Your task to perform on an android device: uninstall "Viber Messenger" Image 0: 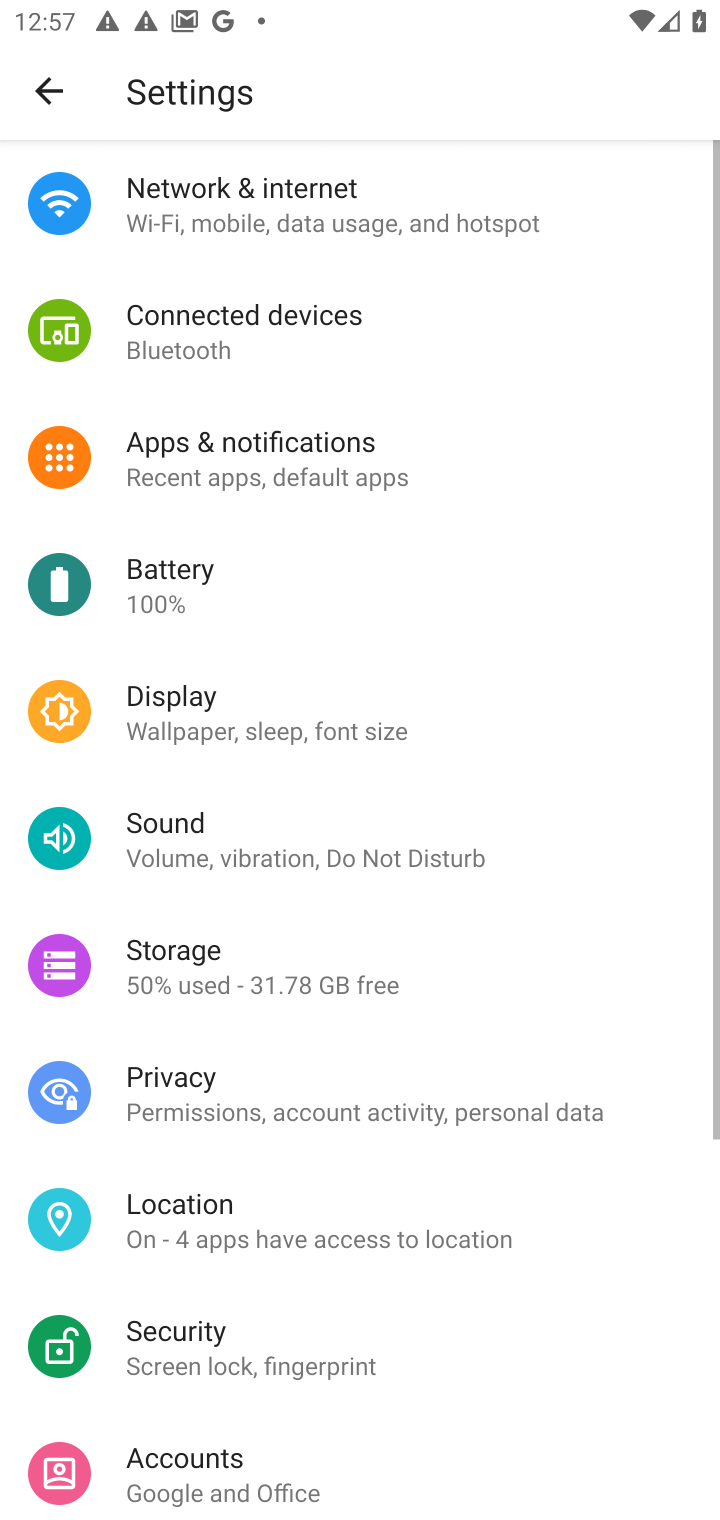
Step 0: press home button
Your task to perform on an android device: uninstall "Viber Messenger" Image 1: 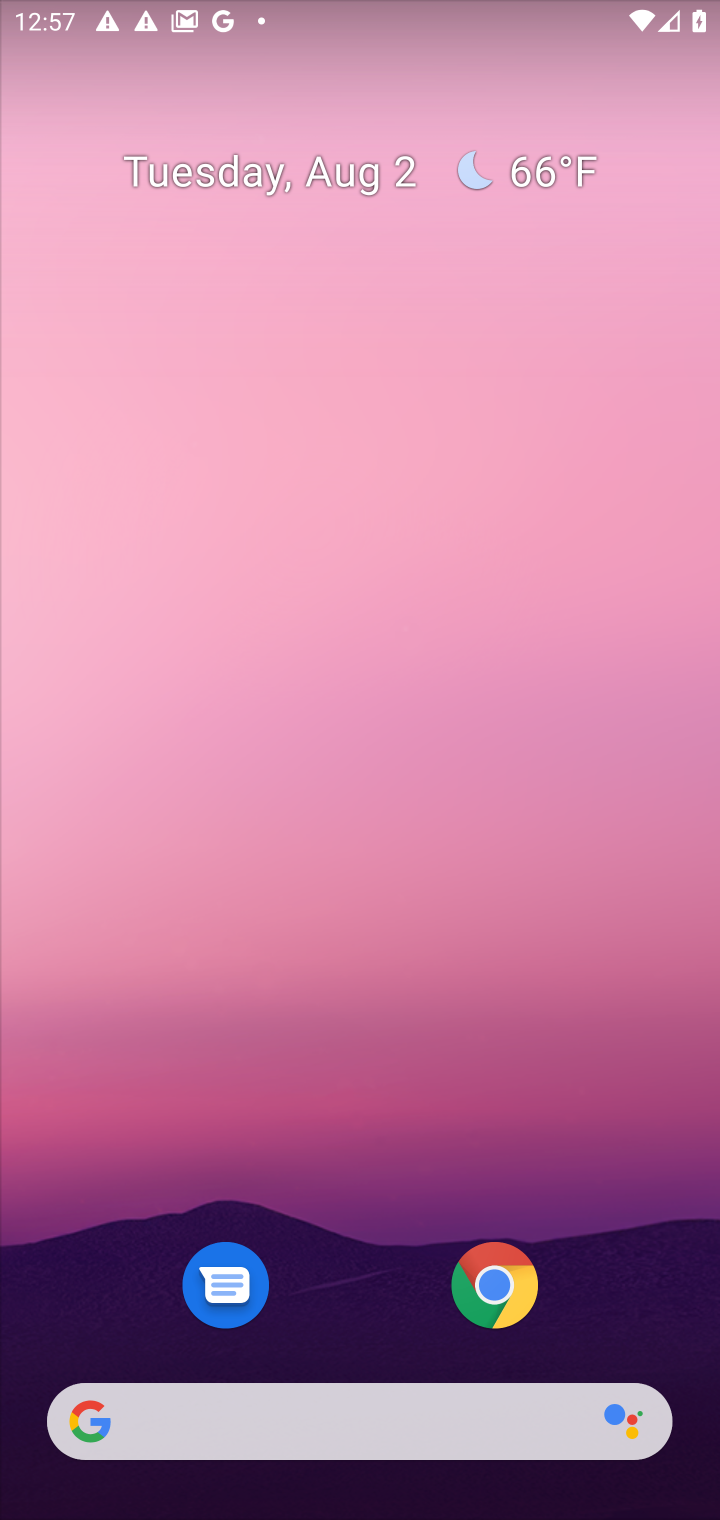
Step 1: drag from (631, 1275) to (634, 195)
Your task to perform on an android device: uninstall "Viber Messenger" Image 2: 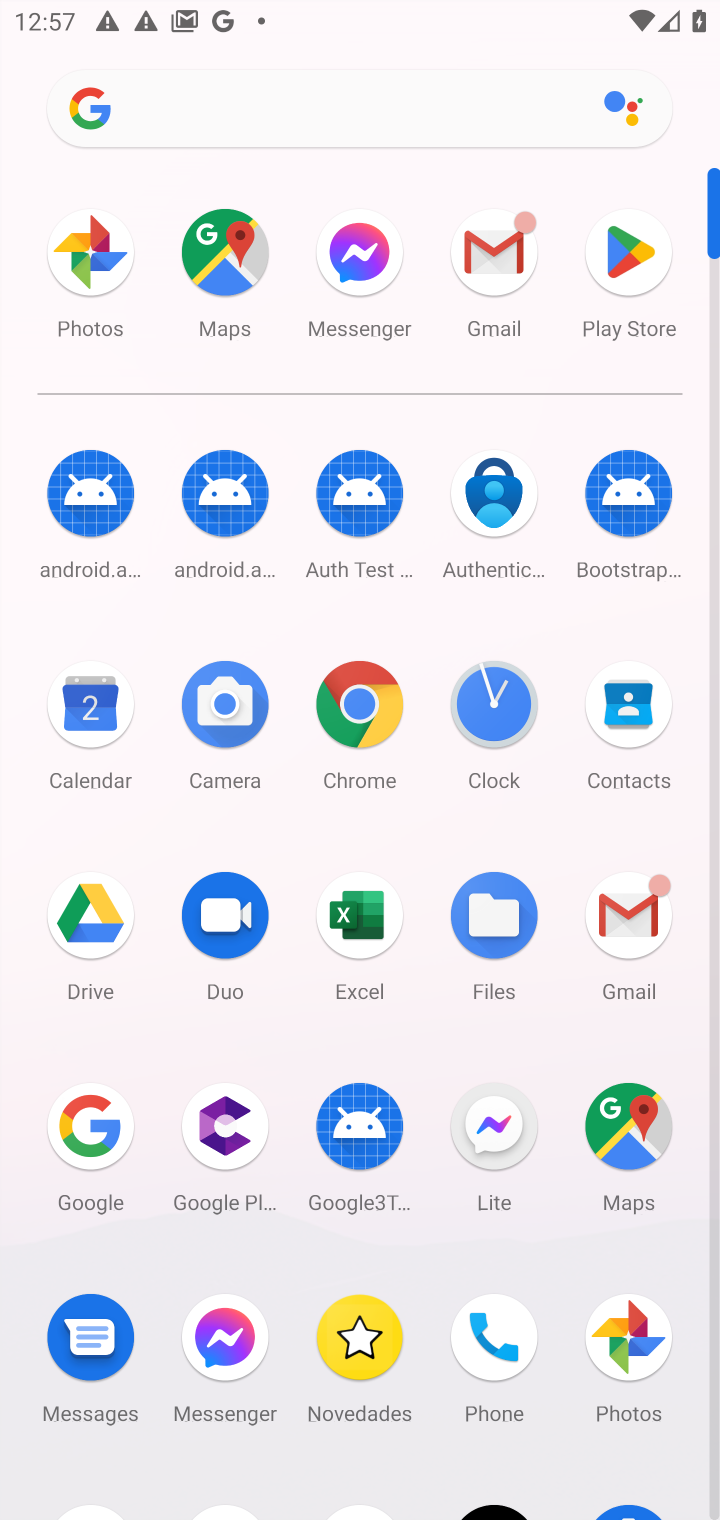
Step 2: drag from (435, 1249) to (483, 398)
Your task to perform on an android device: uninstall "Viber Messenger" Image 3: 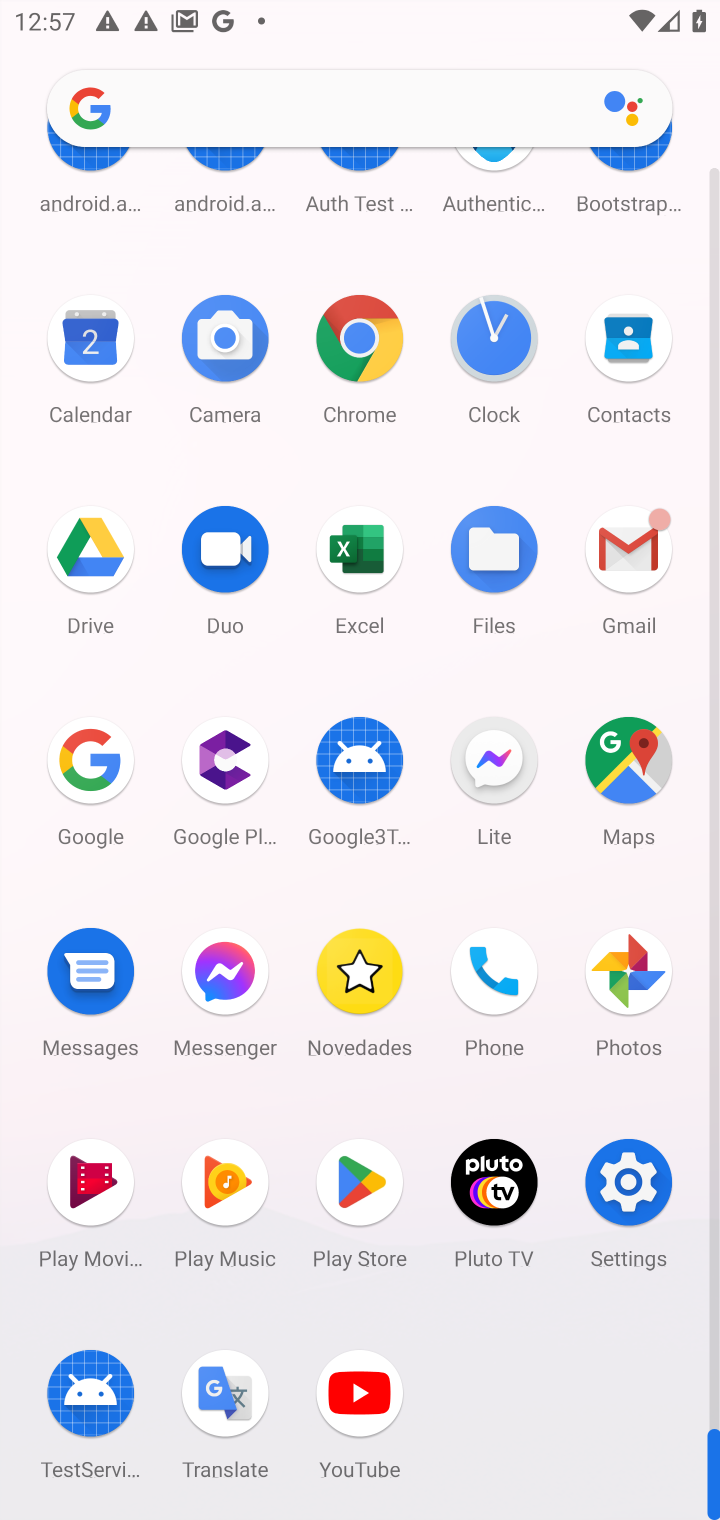
Step 3: click (366, 1188)
Your task to perform on an android device: uninstall "Viber Messenger" Image 4: 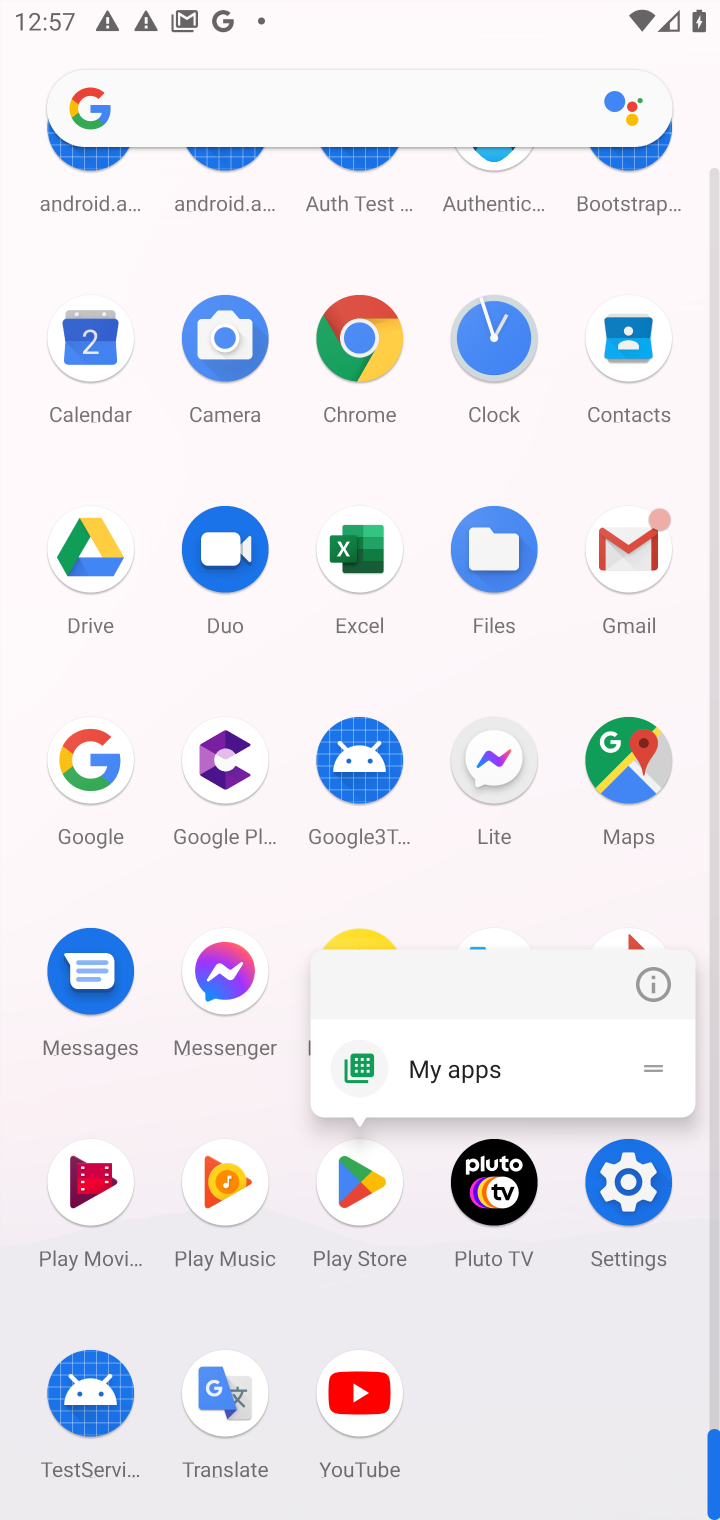
Step 4: click (365, 1193)
Your task to perform on an android device: uninstall "Viber Messenger" Image 5: 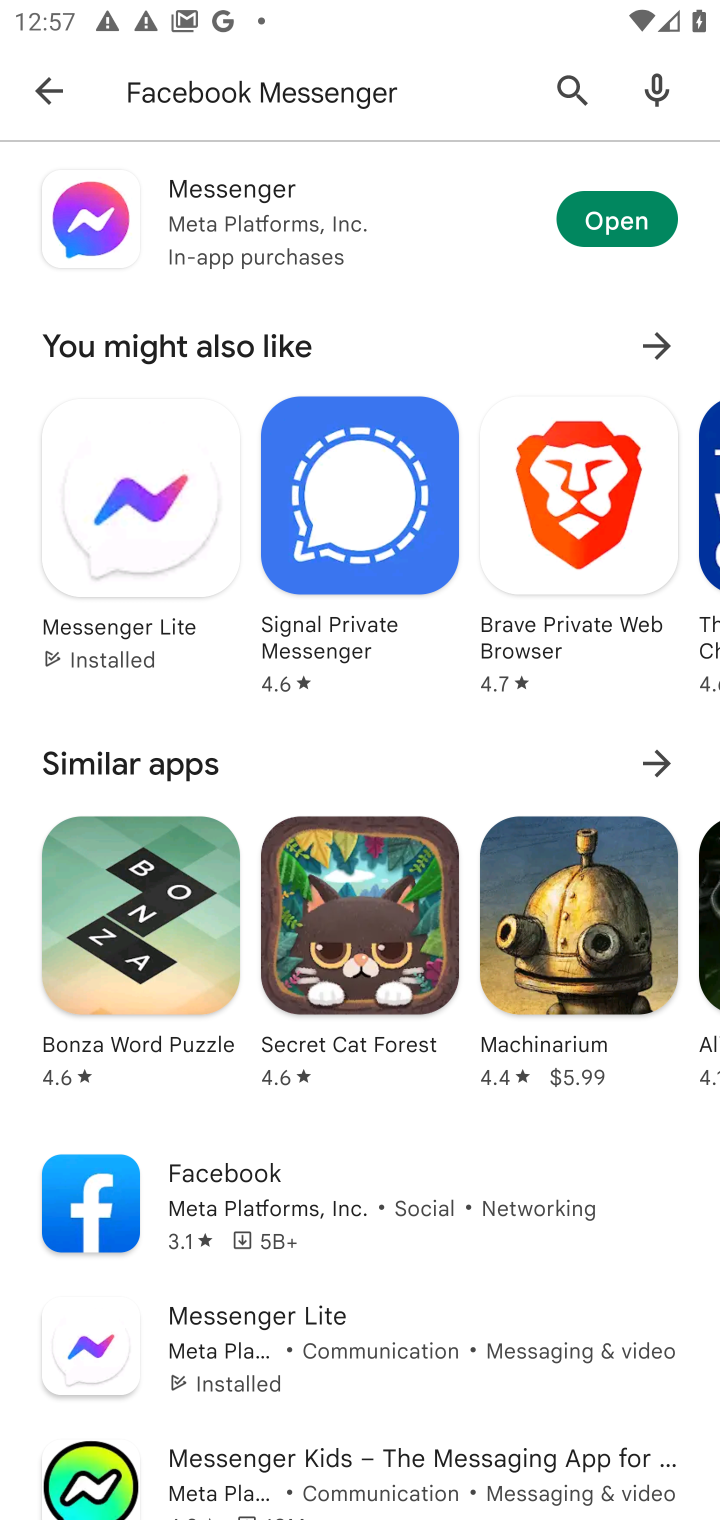
Step 5: click (380, 119)
Your task to perform on an android device: uninstall "Viber Messenger" Image 6: 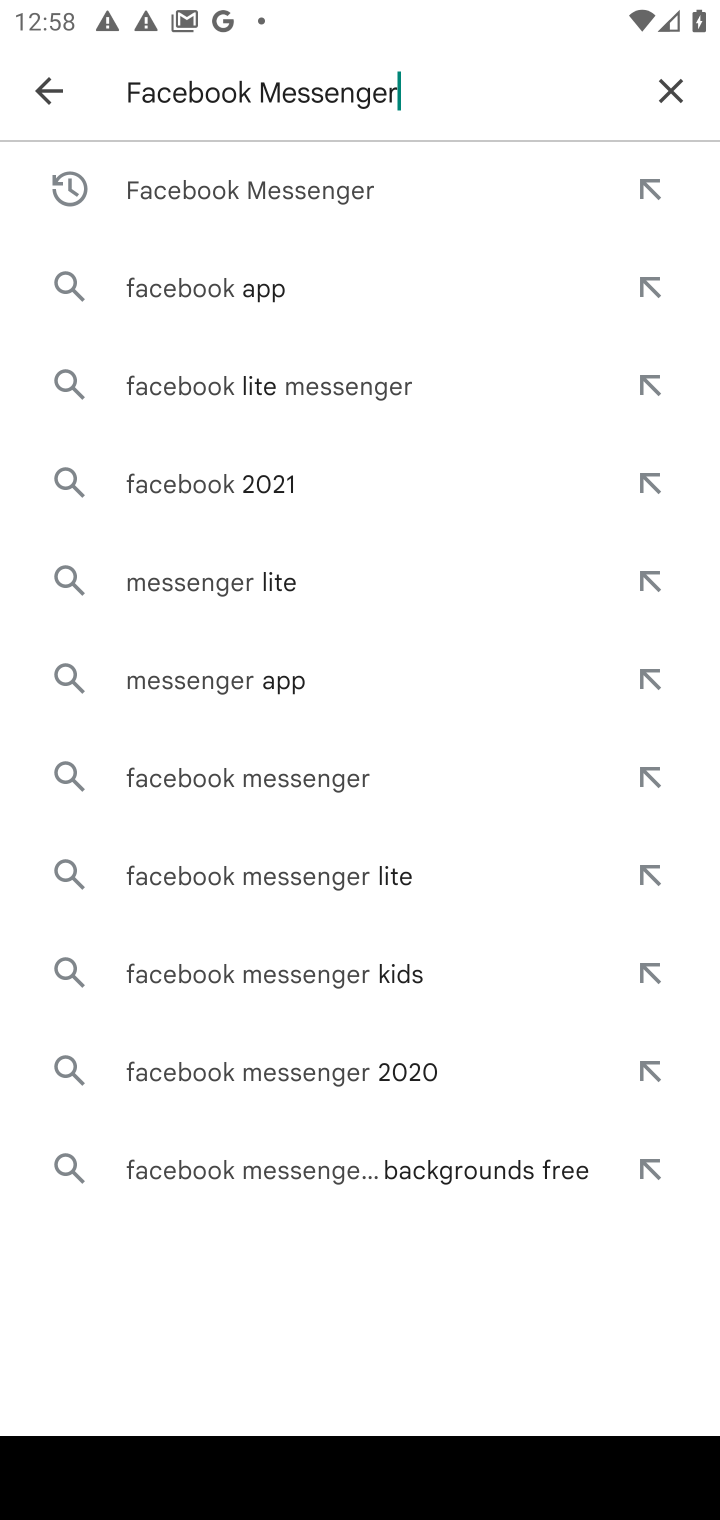
Step 6: click (677, 93)
Your task to perform on an android device: uninstall "Viber Messenger" Image 7: 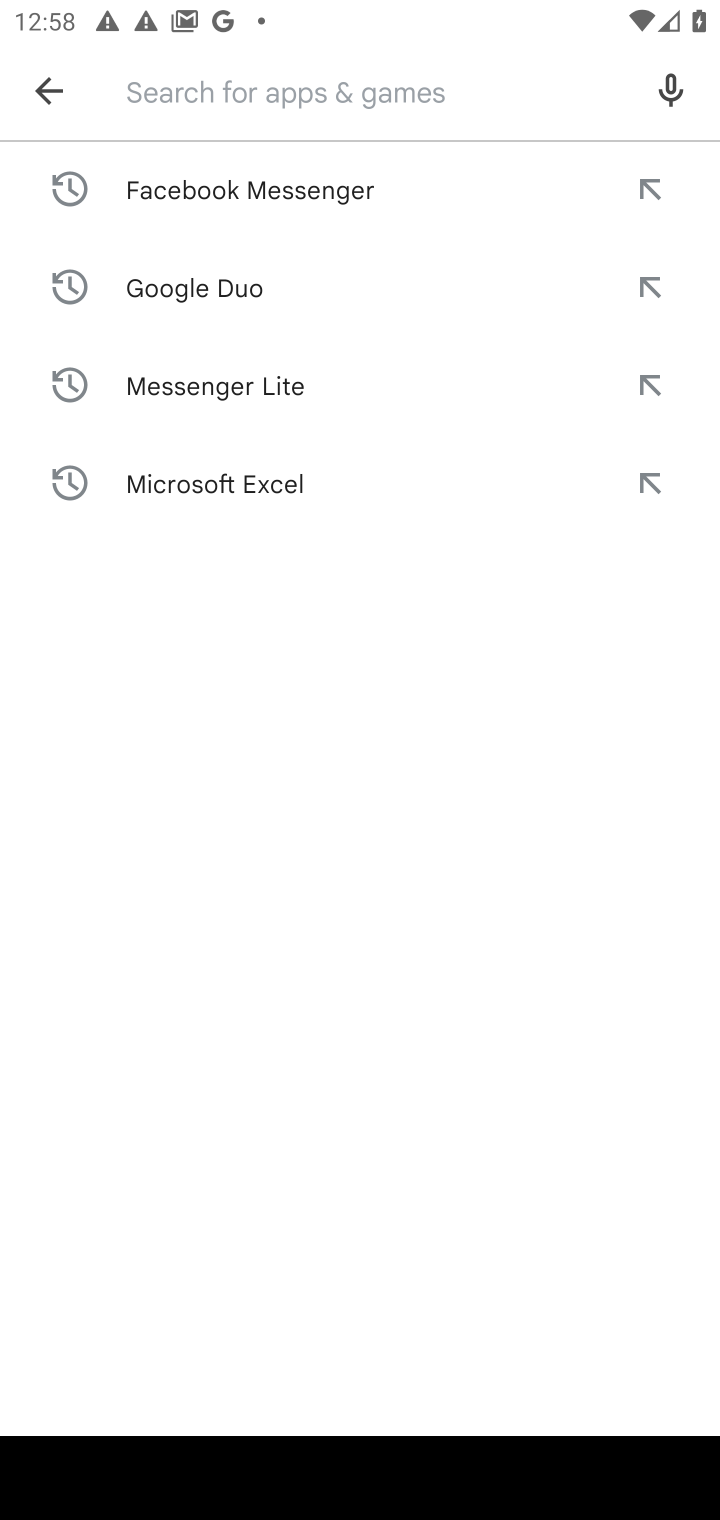
Step 7: type "Viber Messenger"
Your task to perform on an android device: uninstall "Viber Messenger" Image 8: 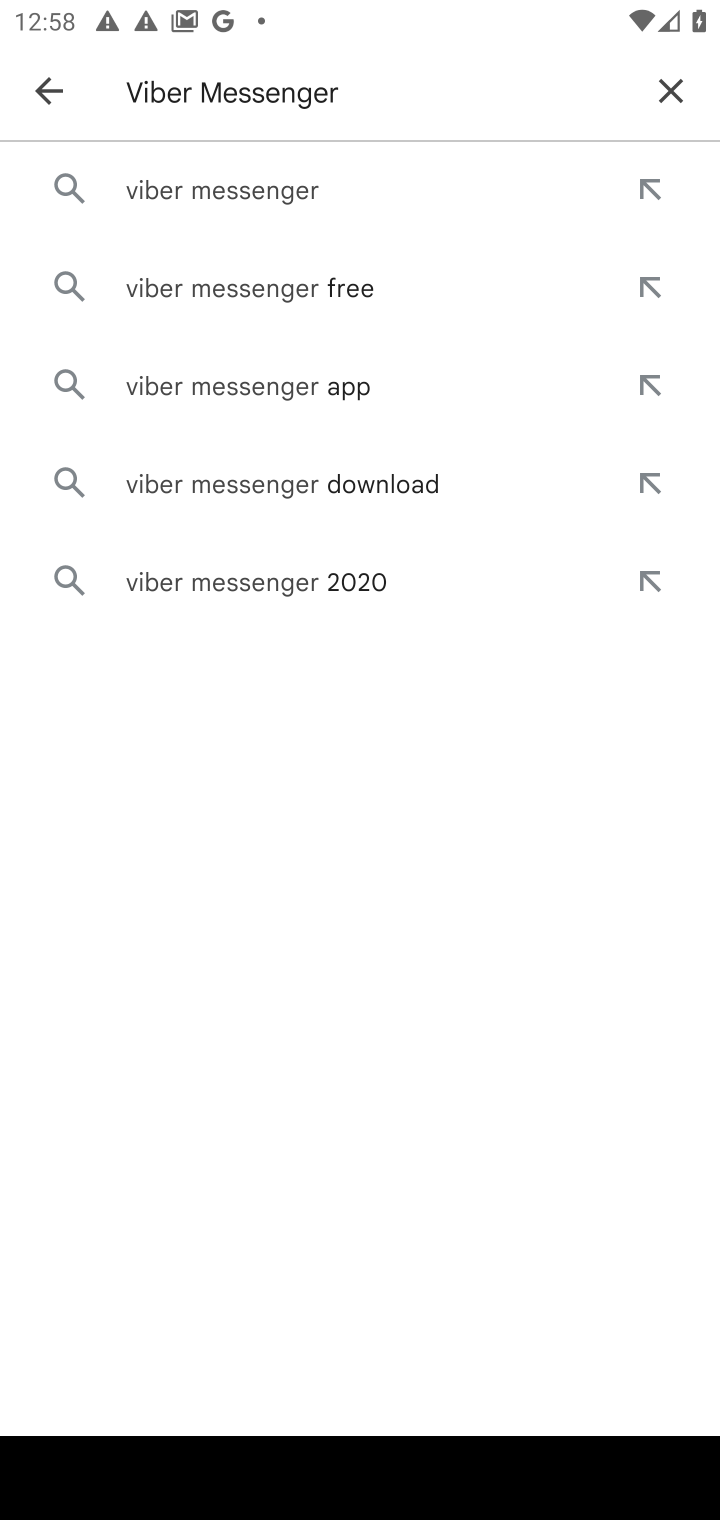
Step 8: press enter
Your task to perform on an android device: uninstall "Viber Messenger" Image 9: 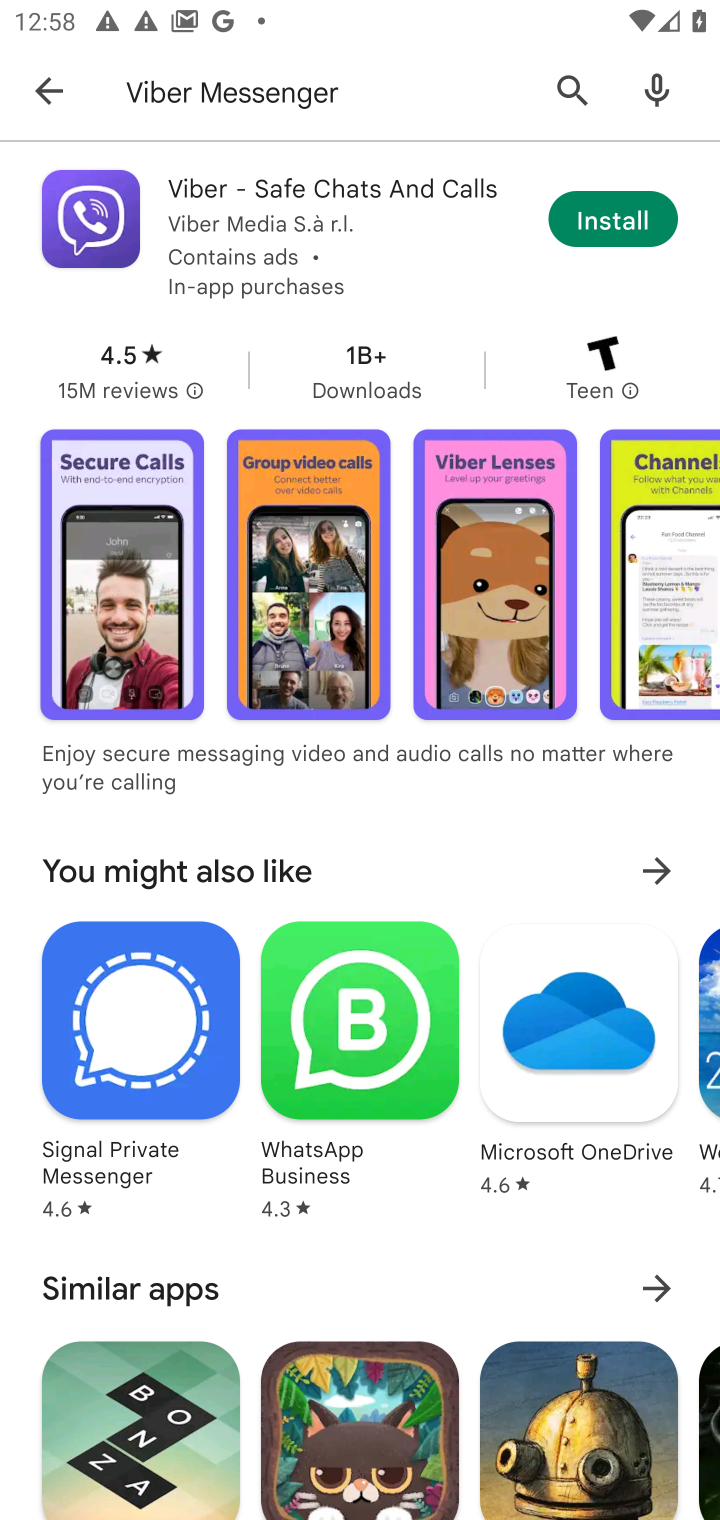
Step 9: task complete